Your task to perform on an android device: Turn off the flashlight Image 0: 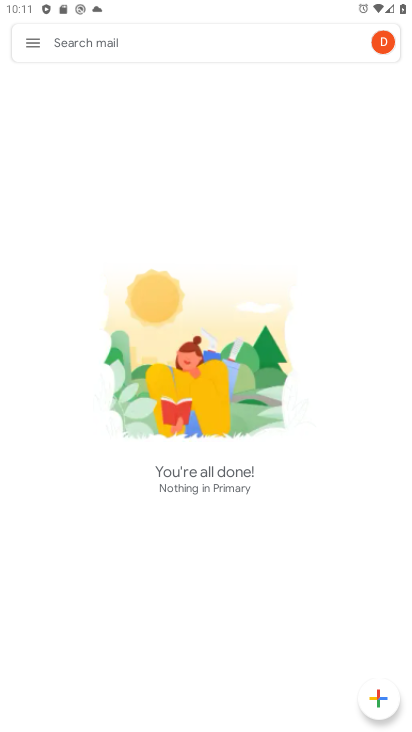
Step 0: press home button
Your task to perform on an android device: Turn off the flashlight Image 1: 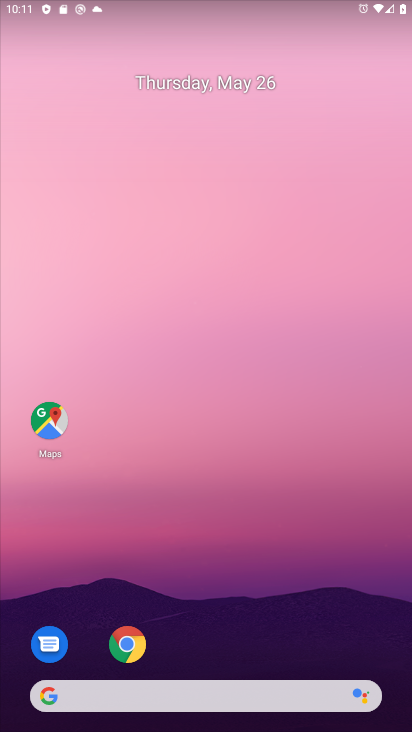
Step 1: drag from (180, 649) to (227, 207)
Your task to perform on an android device: Turn off the flashlight Image 2: 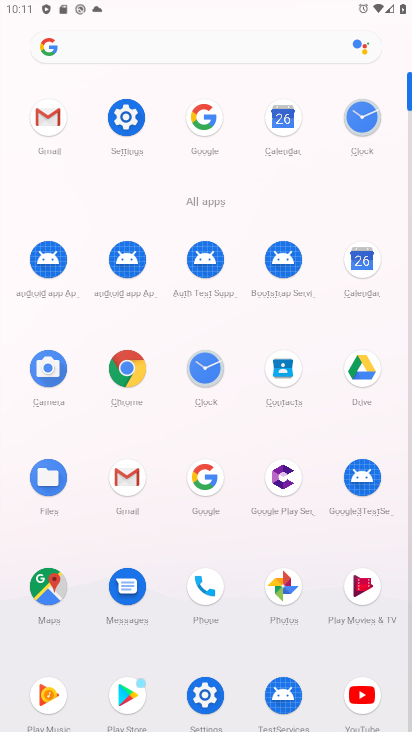
Step 2: click (122, 97)
Your task to perform on an android device: Turn off the flashlight Image 3: 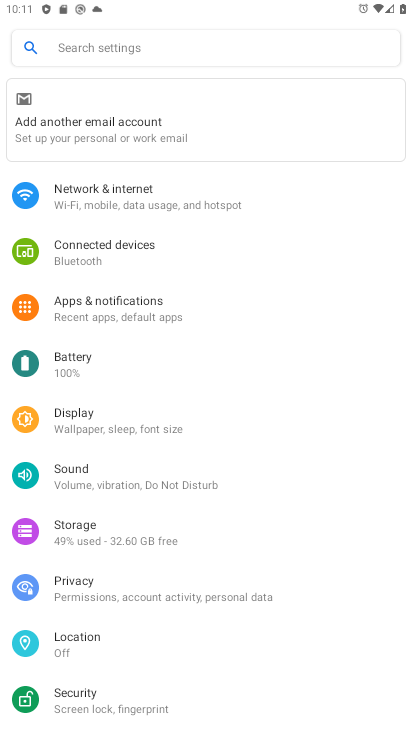
Step 3: task complete